Your task to perform on an android device: toggle data saver in the chrome app Image 0: 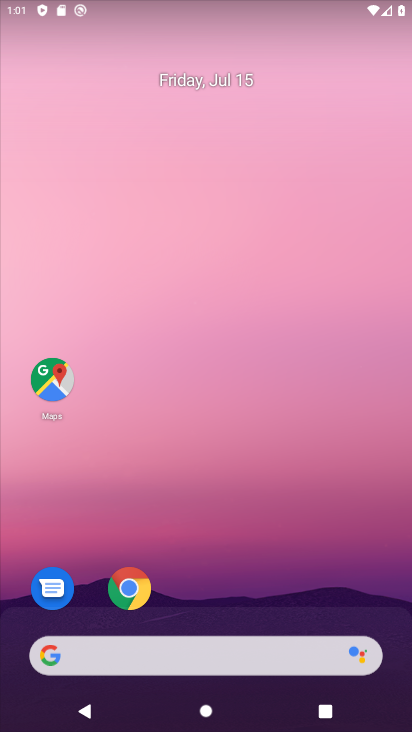
Step 0: click (121, 599)
Your task to perform on an android device: toggle data saver in the chrome app Image 1: 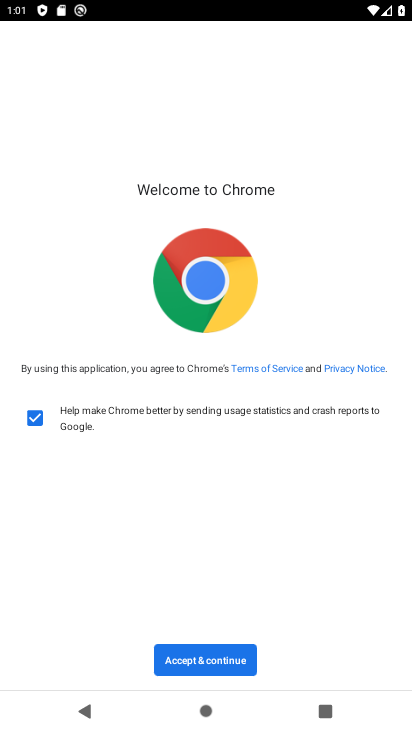
Step 1: click (209, 663)
Your task to perform on an android device: toggle data saver in the chrome app Image 2: 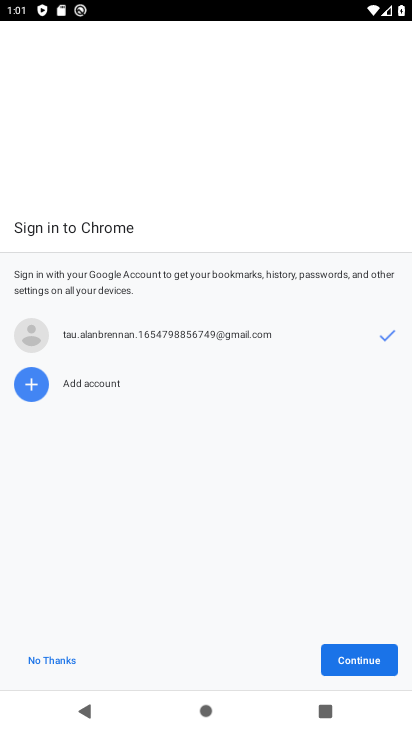
Step 2: click (365, 651)
Your task to perform on an android device: toggle data saver in the chrome app Image 3: 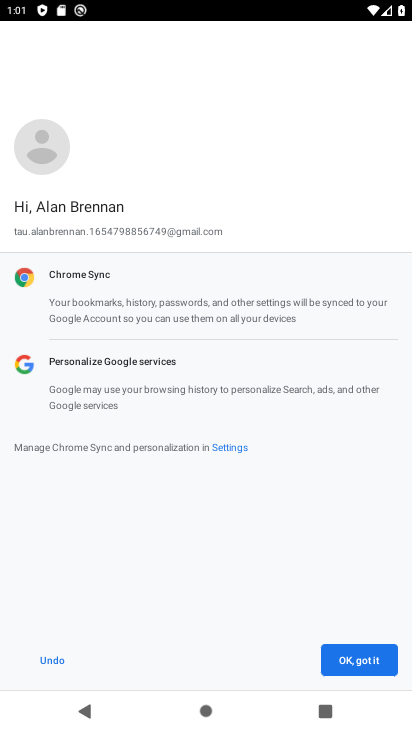
Step 3: click (369, 652)
Your task to perform on an android device: toggle data saver in the chrome app Image 4: 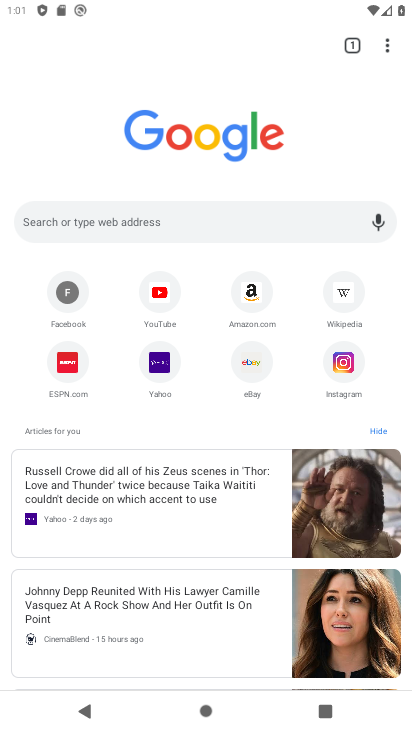
Step 4: click (390, 36)
Your task to perform on an android device: toggle data saver in the chrome app Image 5: 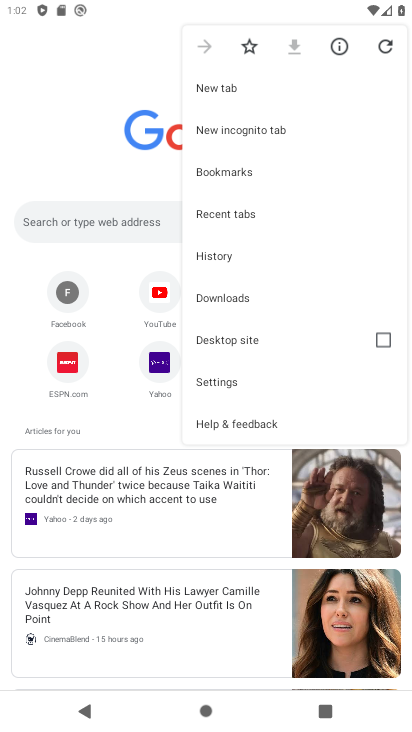
Step 5: click (208, 389)
Your task to perform on an android device: toggle data saver in the chrome app Image 6: 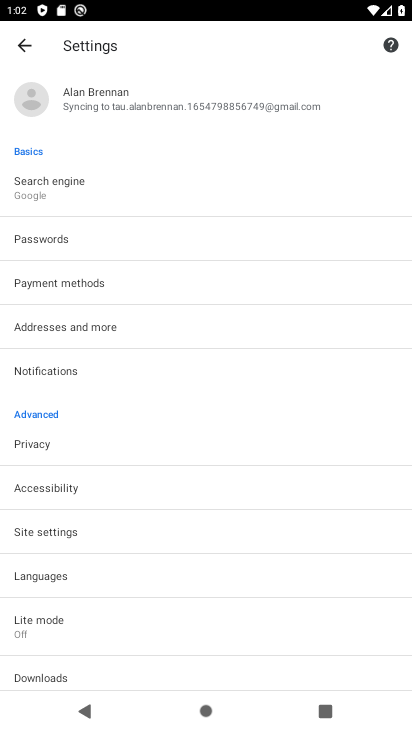
Step 6: click (69, 623)
Your task to perform on an android device: toggle data saver in the chrome app Image 7: 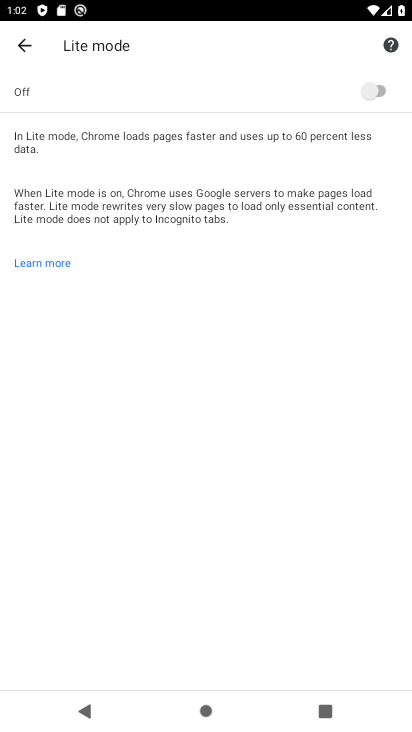
Step 7: click (368, 94)
Your task to perform on an android device: toggle data saver in the chrome app Image 8: 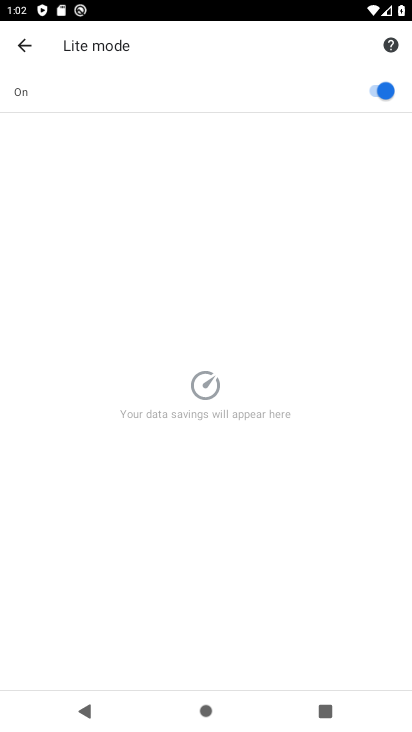
Step 8: task complete